Your task to perform on an android device: clear all cookies in the chrome app Image 0: 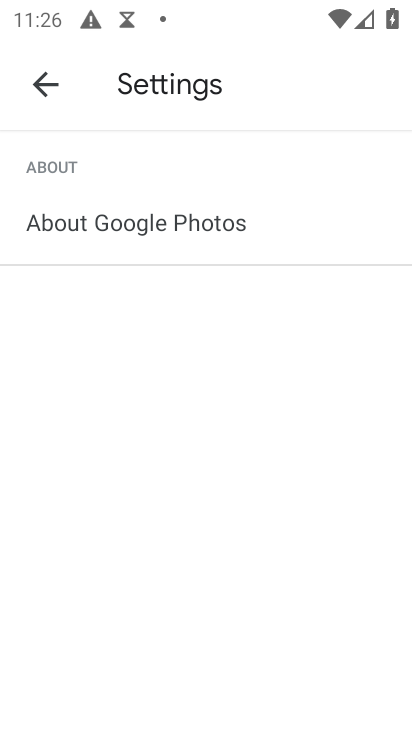
Step 0: press home button
Your task to perform on an android device: clear all cookies in the chrome app Image 1: 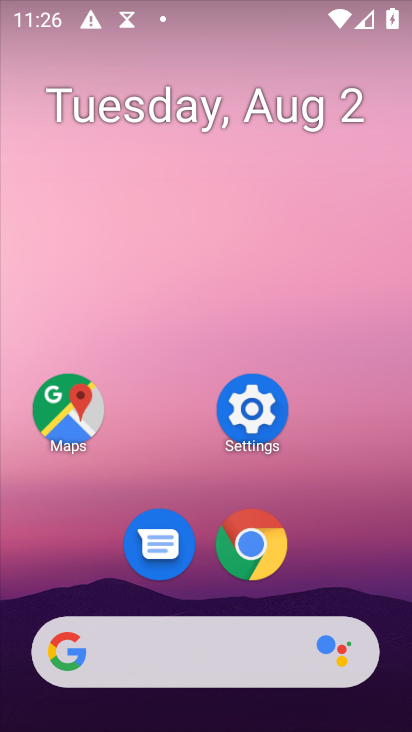
Step 1: click (255, 550)
Your task to perform on an android device: clear all cookies in the chrome app Image 2: 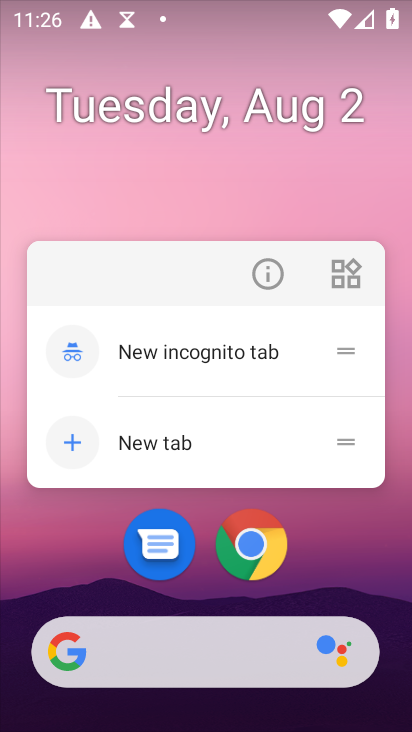
Step 2: click (252, 540)
Your task to perform on an android device: clear all cookies in the chrome app Image 3: 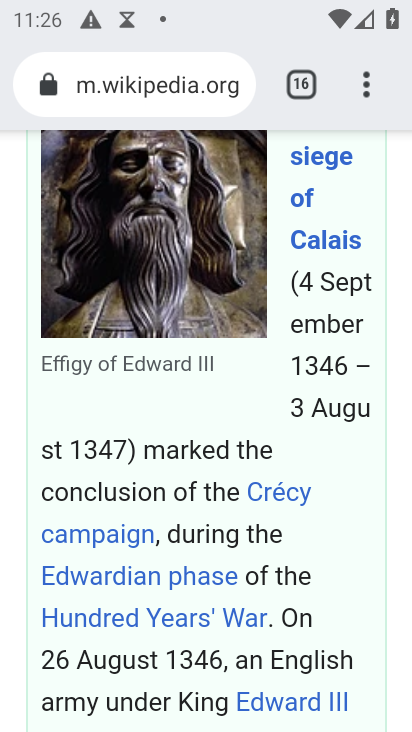
Step 3: drag from (363, 84) to (252, 590)
Your task to perform on an android device: clear all cookies in the chrome app Image 4: 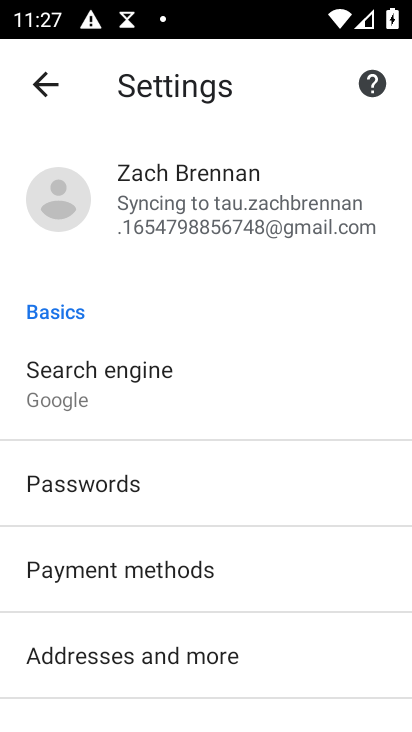
Step 4: drag from (253, 636) to (349, 151)
Your task to perform on an android device: clear all cookies in the chrome app Image 5: 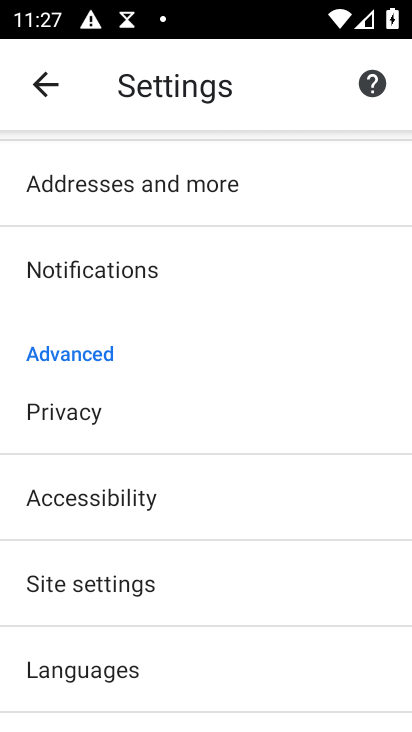
Step 5: click (92, 421)
Your task to perform on an android device: clear all cookies in the chrome app Image 6: 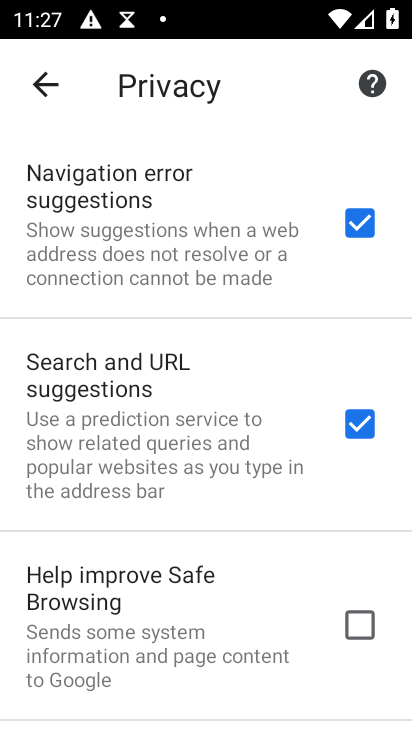
Step 6: drag from (195, 687) to (355, 84)
Your task to perform on an android device: clear all cookies in the chrome app Image 7: 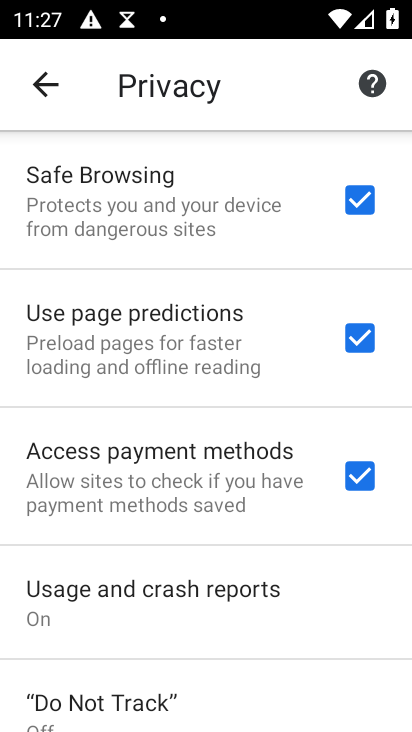
Step 7: drag from (270, 679) to (311, 156)
Your task to perform on an android device: clear all cookies in the chrome app Image 8: 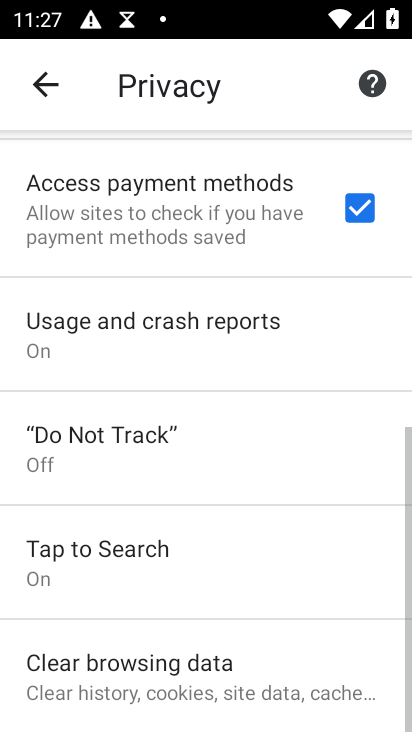
Step 8: drag from (250, 585) to (325, 131)
Your task to perform on an android device: clear all cookies in the chrome app Image 9: 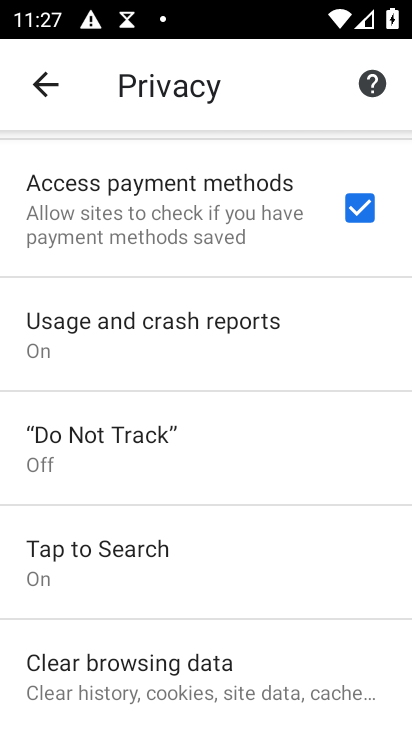
Step 9: click (195, 668)
Your task to perform on an android device: clear all cookies in the chrome app Image 10: 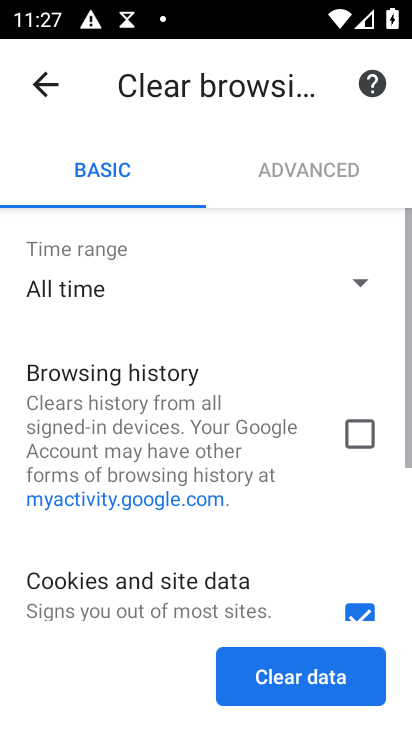
Step 10: drag from (241, 517) to (345, 197)
Your task to perform on an android device: clear all cookies in the chrome app Image 11: 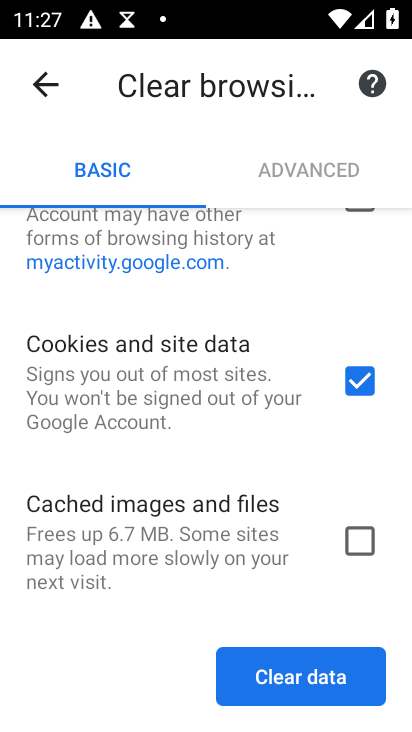
Step 11: click (302, 675)
Your task to perform on an android device: clear all cookies in the chrome app Image 12: 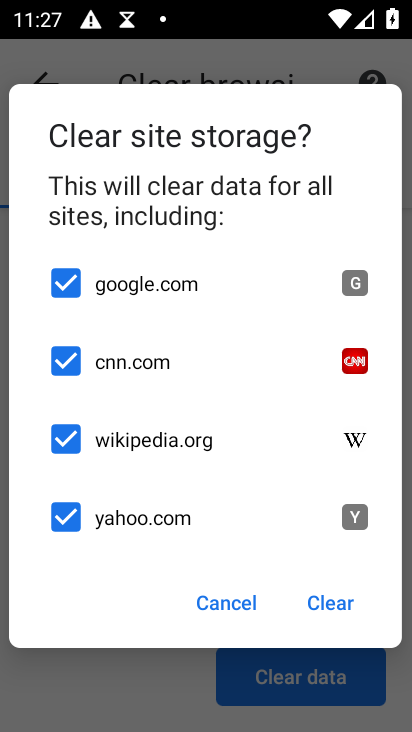
Step 12: click (338, 596)
Your task to perform on an android device: clear all cookies in the chrome app Image 13: 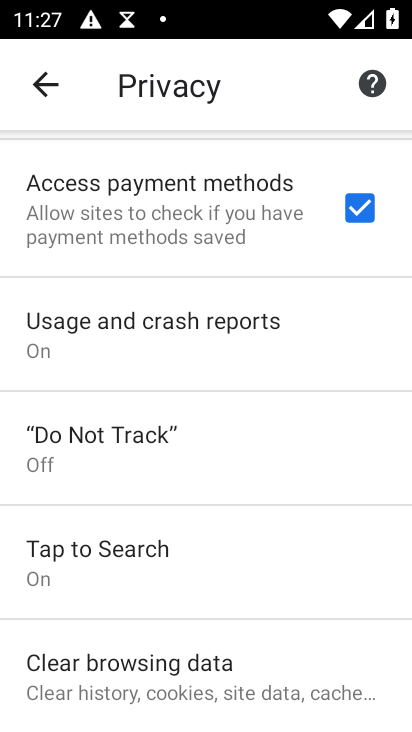
Step 13: task complete